Your task to perform on an android device: make emails show in primary in the gmail app Image 0: 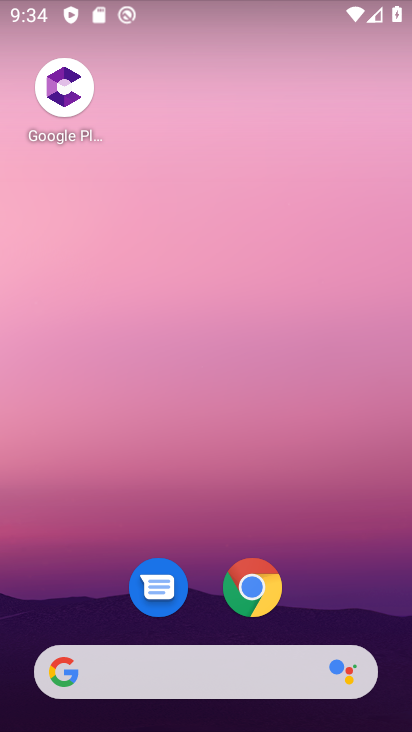
Step 0: click (350, 418)
Your task to perform on an android device: make emails show in primary in the gmail app Image 1: 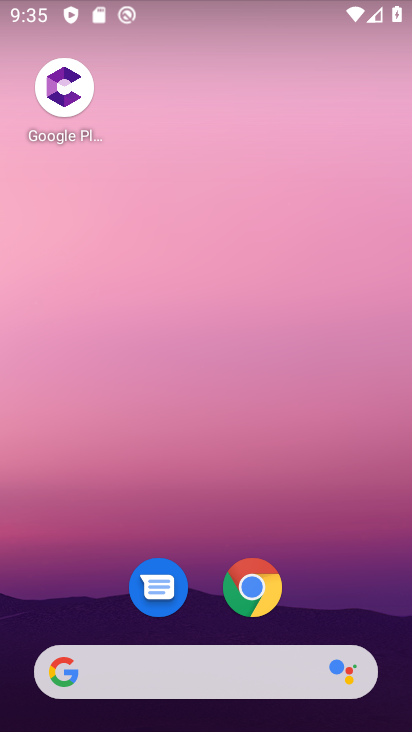
Step 1: drag from (349, 603) to (244, 181)
Your task to perform on an android device: make emails show in primary in the gmail app Image 2: 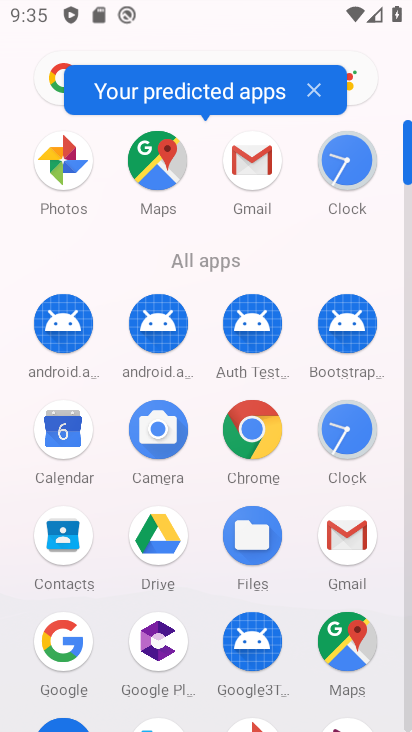
Step 2: click (349, 543)
Your task to perform on an android device: make emails show in primary in the gmail app Image 3: 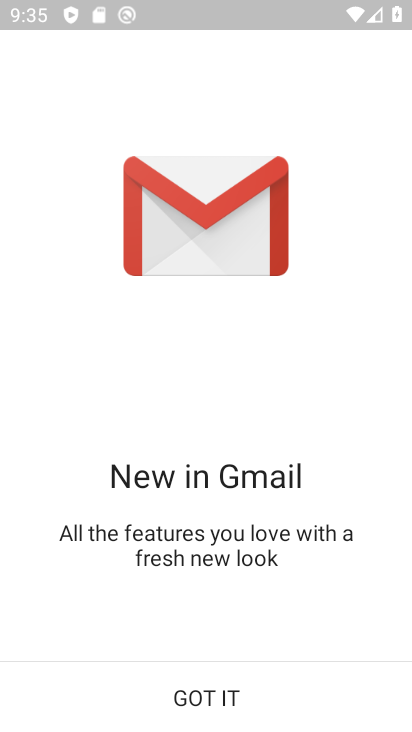
Step 3: click (233, 679)
Your task to perform on an android device: make emails show in primary in the gmail app Image 4: 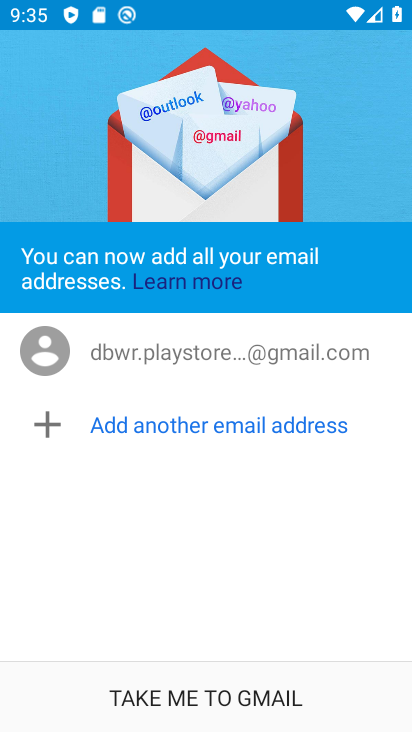
Step 4: click (210, 693)
Your task to perform on an android device: make emails show in primary in the gmail app Image 5: 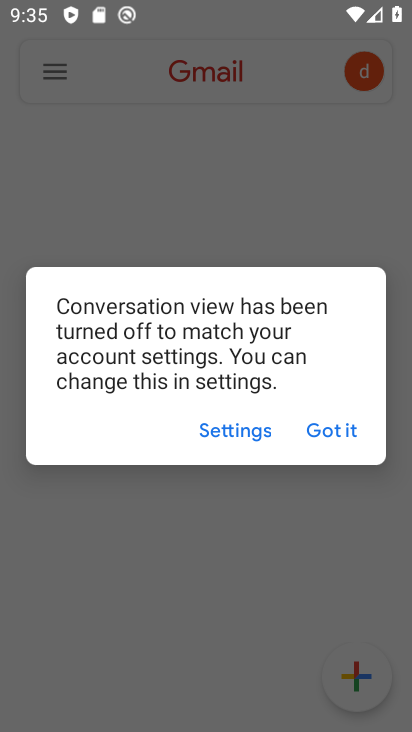
Step 5: click (316, 426)
Your task to perform on an android device: make emails show in primary in the gmail app Image 6: 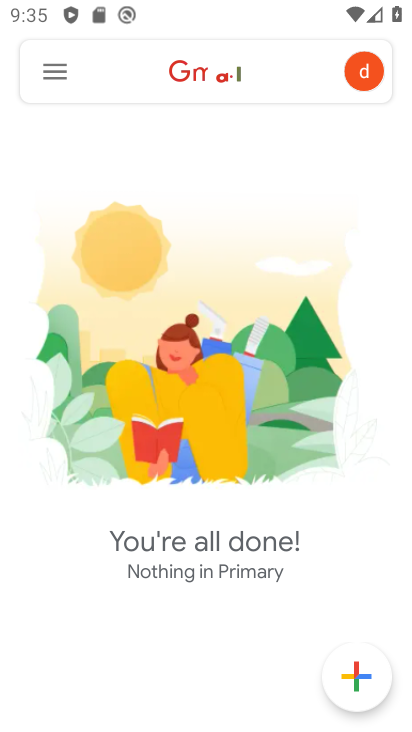
Step 6: click (56, 58)
Your task to perform on an android device: make emails show in primary in the gmail app Image 7: 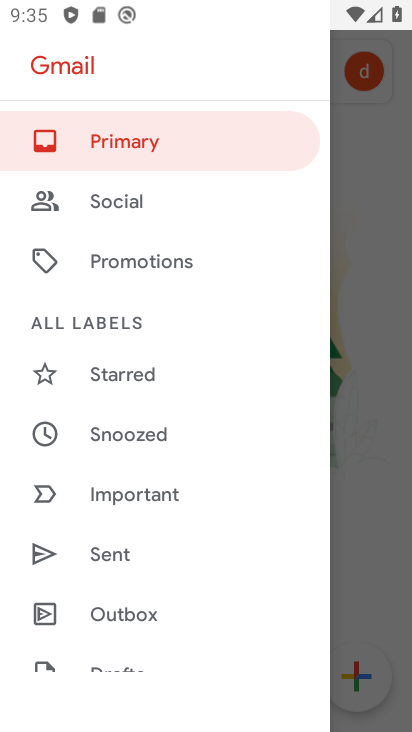
Step 7: click (134, 149)
Your task to perform on an android device: make emails show in primary in the gmail app Image 8: 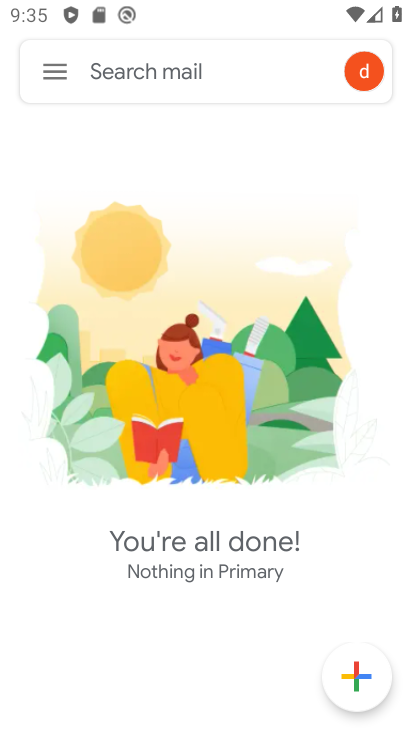
Step 8: task complete